Your task to perform on an android device: turn on location history Image 0: 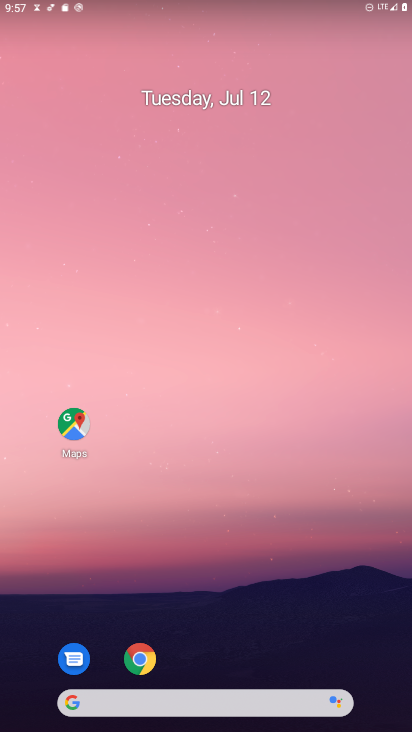
Step 0: drag from (187, 702) to (141, 27)
Your task to perform on an android device: turn on location history Image 1: 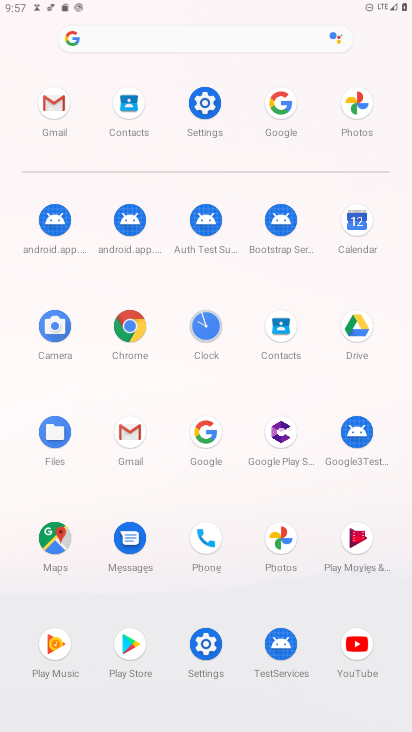
Step 1: click (203, 100)
Your task to perform on an android device: turn on location history Image 2: 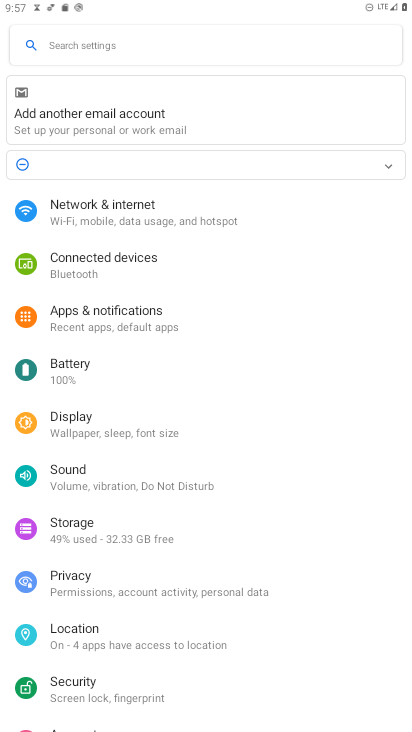
Step 2: click (100, 639)
Your task to perform on an android device: turn on location history Image 3: 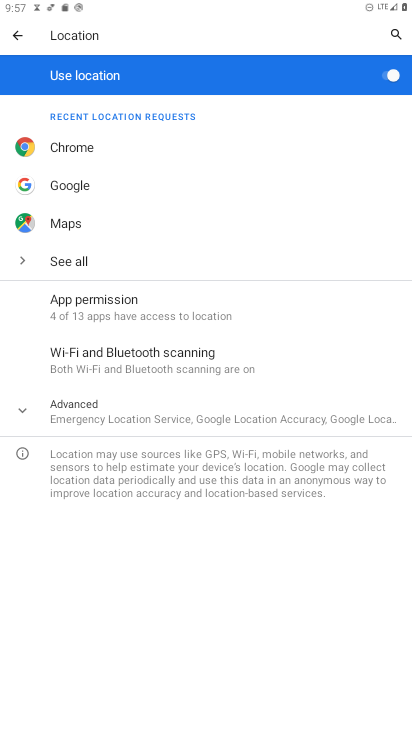
Step 3: click (179, 421)
Your task to perform on an android device: turn on location history Image 4: 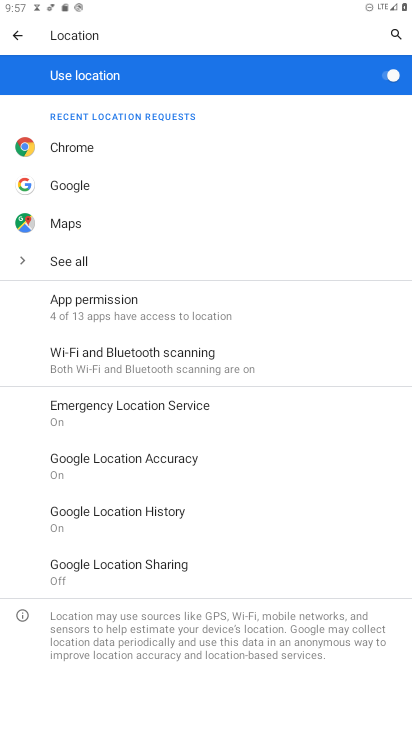
Step 4: click (143, 511)
Your task to perform on an android device: turn on location history Image 5: 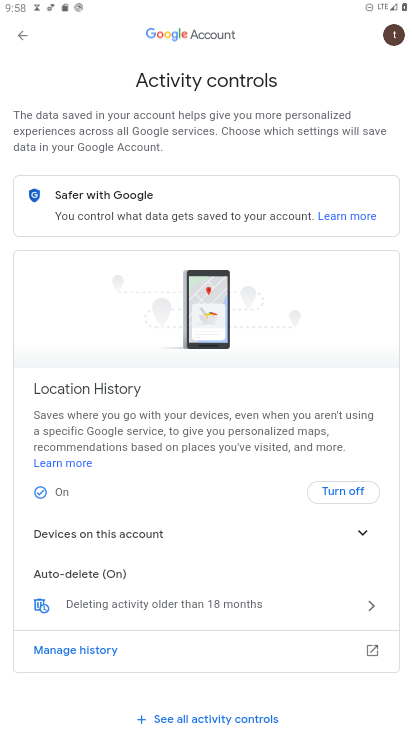
Step 5: task complete